Your task to perform on an android device: Go to Wikipedia Image 0: 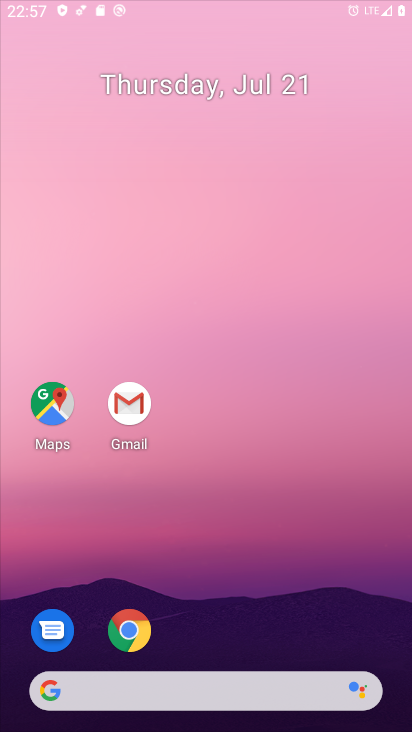
Step 0: drag from (242, 565) to (216, 232)
Your task to perform on an android device: Go to Wikipedia Image 1: 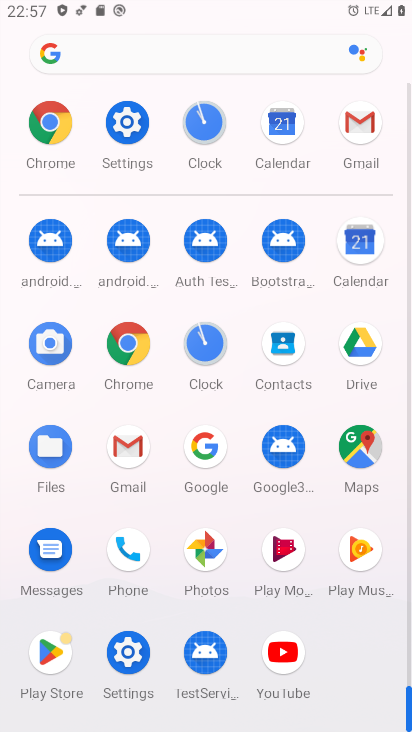
Step 1: click (47, 122)
Your task to perform on an android device: Go to Wikipedia Image 2: 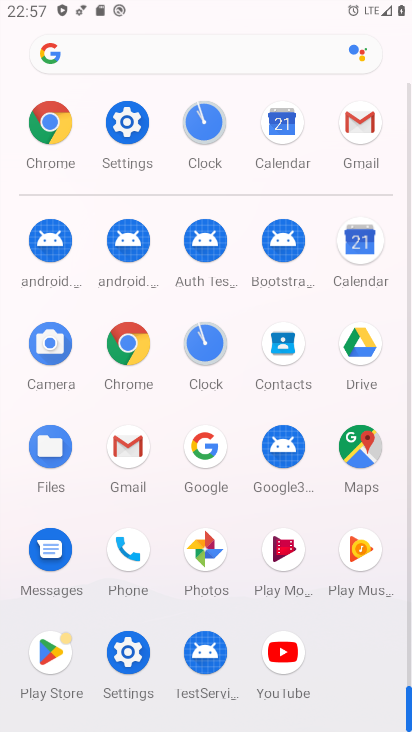
Step 2: click (46, 120)
Your task to perform on an android device: Go to Wikipedia Image 3: 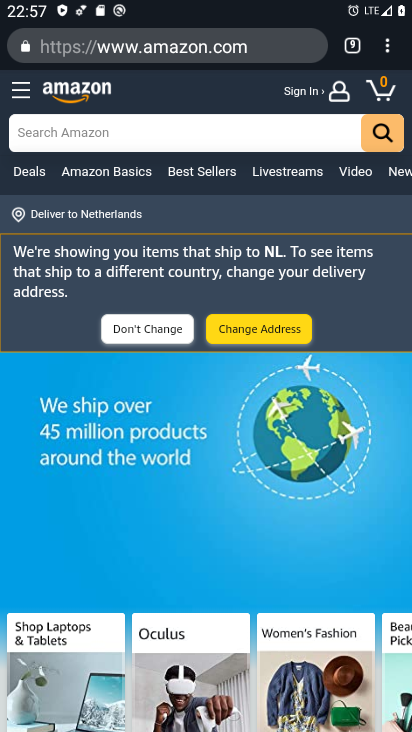
Step 3: drag from (391, 47) to (253, 86)
Your task to perform on an android device: Go to Wikipedia Image 4: 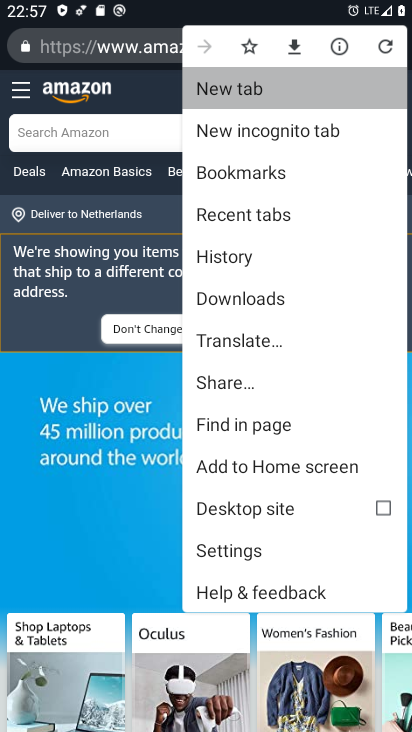
Step 4: click (264, 79)
Your task to perform on an android device: Go to Wikipedia Image 5: 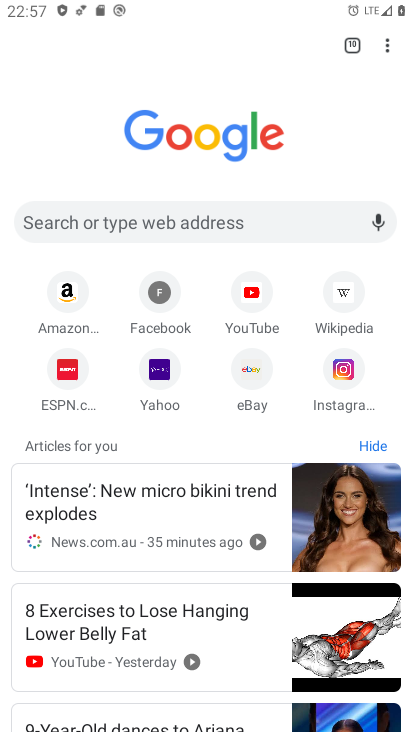
Step 5: click (346, 296)
Your task to perform on an android device: Go to Wikipedia Image 6: 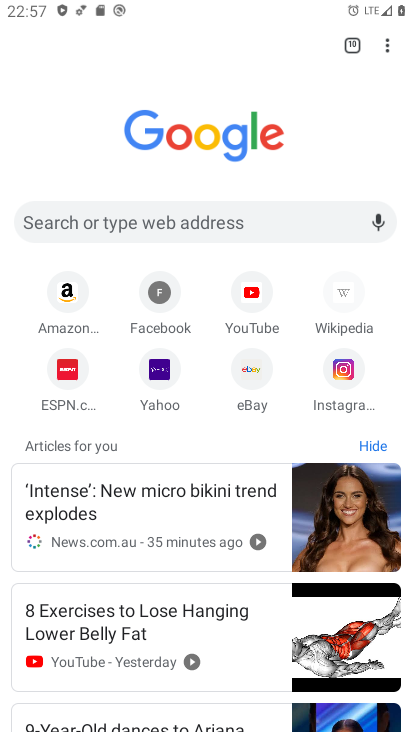
Step 6: click (346, 296)
Your task to perform on an android device: Go to Wikipedia Image 7: 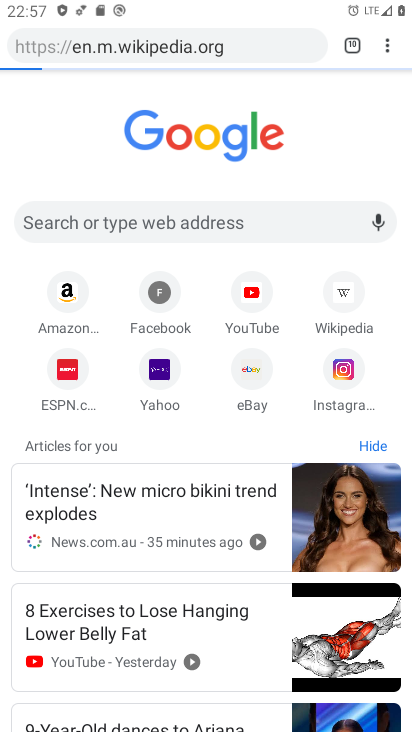
Step 7: click (346, 296)
Your task to perform on an android device: Go to Wikipedia Image 8: 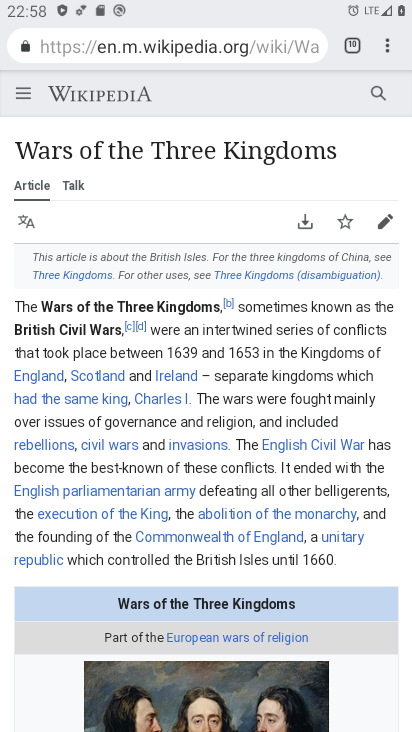
Step 8: task complete